Your task to perform on an android device: What is the news today? Image 0: 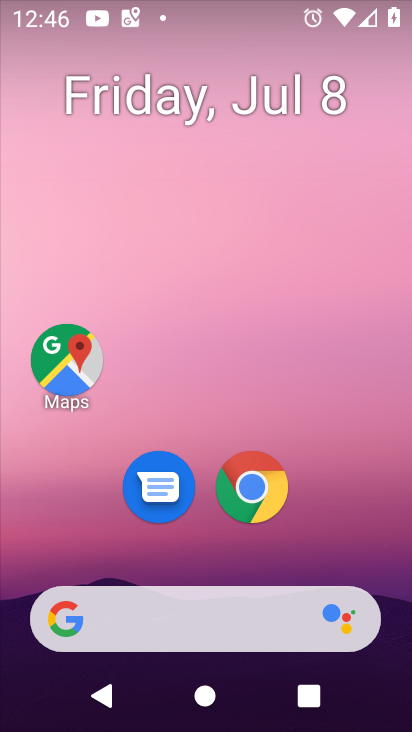
Step 0: drag from (0, 217) to (398, 369)
Your task to perform on an android device: What is the news today? Image 1: 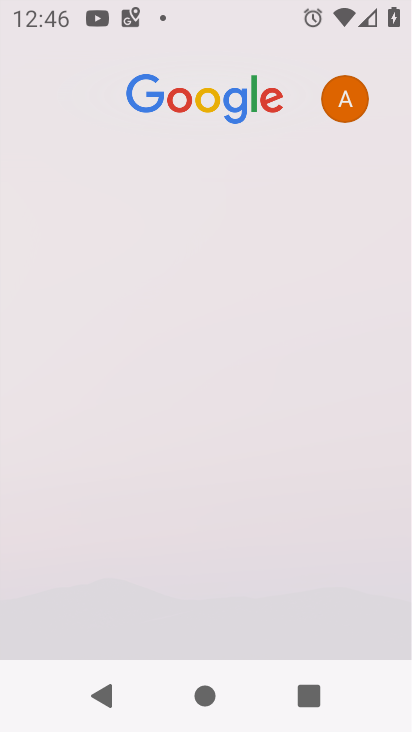
Step 1: task complete